Your task to perform on an android device: Go to CNN.com Image 0: 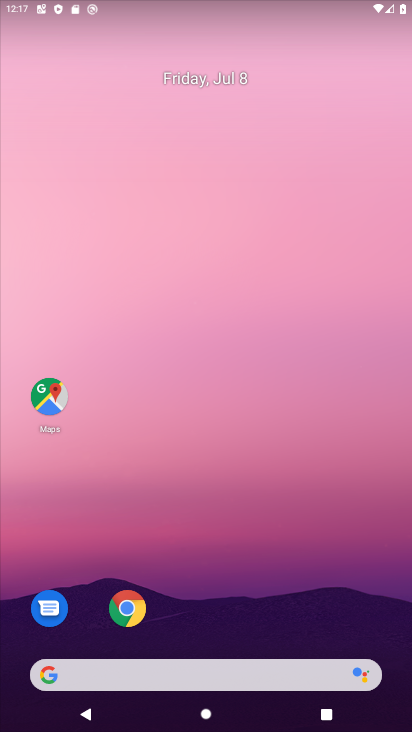
Step 0: click (122, 593)
Your task to perform on an android device: Go to CNN.com Image 1: 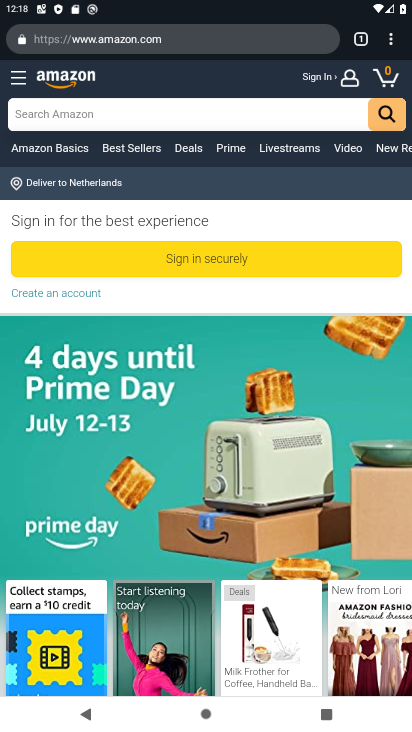
Step 1: click (194, 31)
Your task to perform on an android device: Go to CNN.com Image 2: 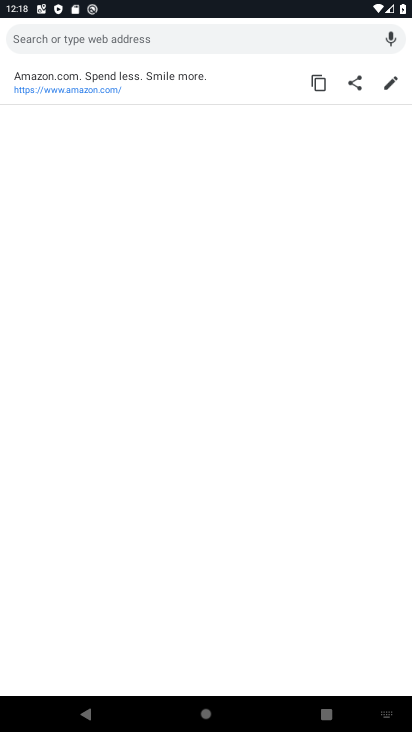
Step 2: type " CNN.com"
Your task to perform on an android device: Go to CNN.com Image 3: 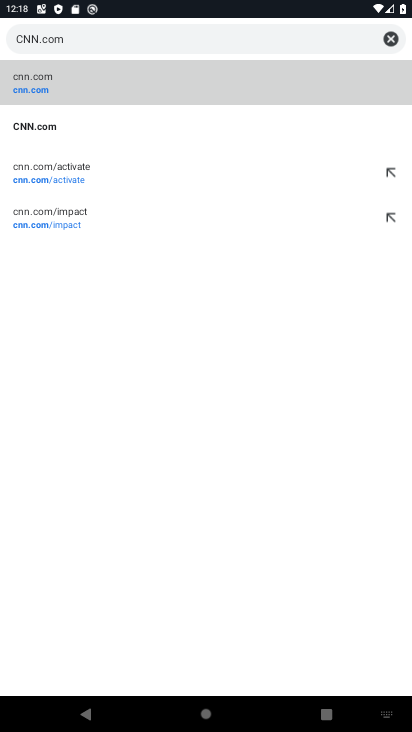
Step 3: click (362, 81)
Your task to perform on an android device: Go to CNN.com Image 4: 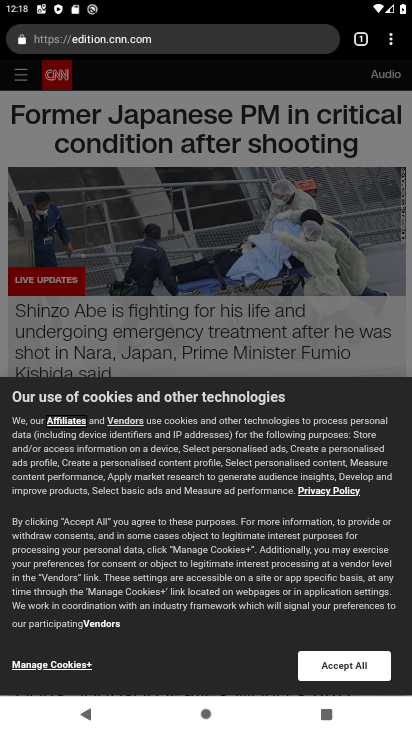
Step 4: task complete